Your task to perform on an android device: Open CNN.com Image 0: 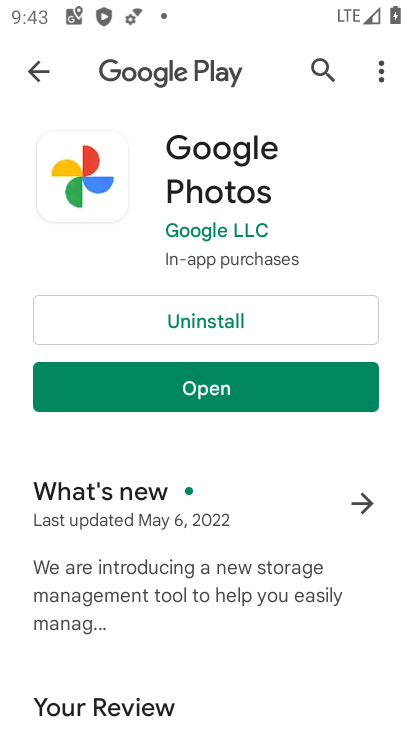
Step 0: press home button
Your task to perform on an android device: Open CNN.com Image 1: 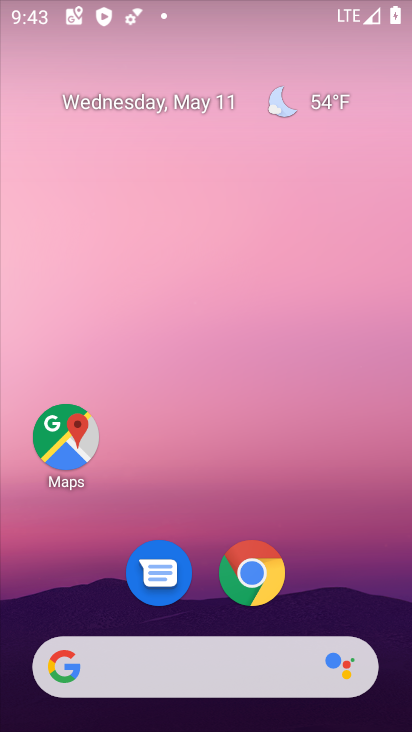
Step 1: drag from (242, 586) to (317, 39)
Your task to perform on an android device: Open CNN.com Image 2: 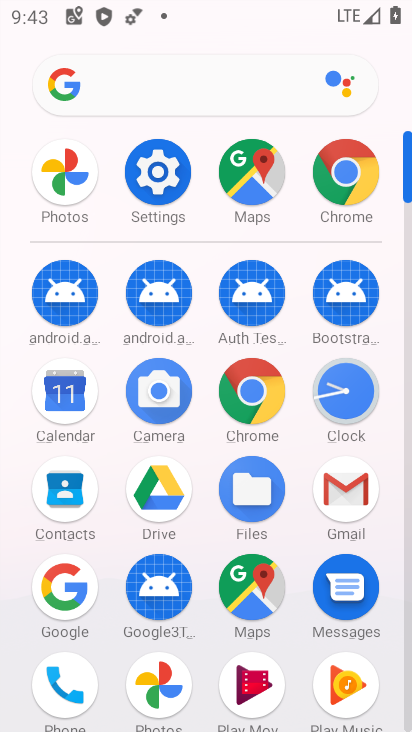
Step 2: click (242, 390)
Your task to perform on an android device: Open CNN.com Image 3: 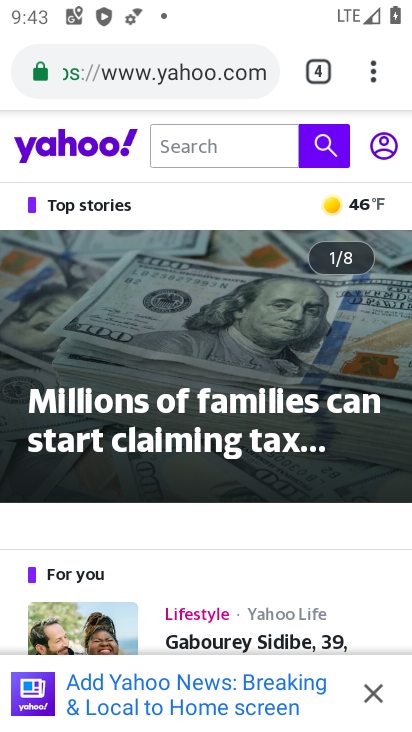
Step 3: click (258, 76)
Your task to perform on an android device: Open CNN.com Image 4: 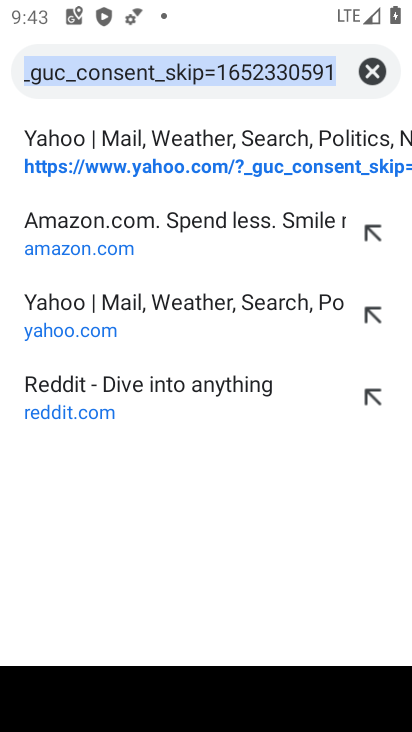
Step 4: click (363, 73)
Your task to perform on an android device: Open CNN.com Image 5: 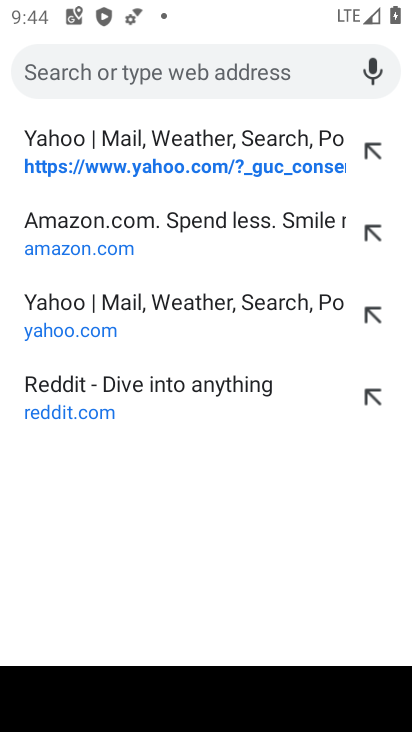
Step 5: type "cnn.com"
Your task to perform on an android device: Open CNN.com Image 6: 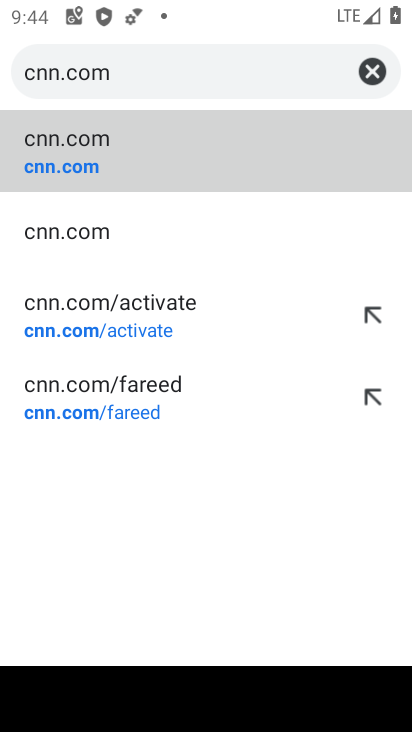
Step 6: click (308, 144)
Your task to perform on an android device: Open CNN.com Image 7: 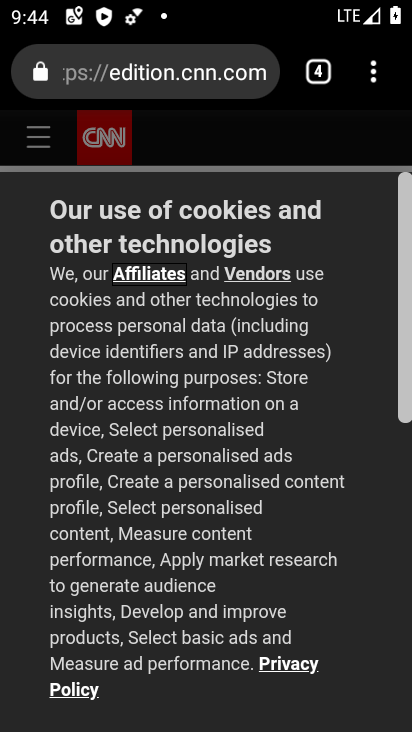
Step 7: task complete